Your task to perform on an android device: check google app version Image 0: 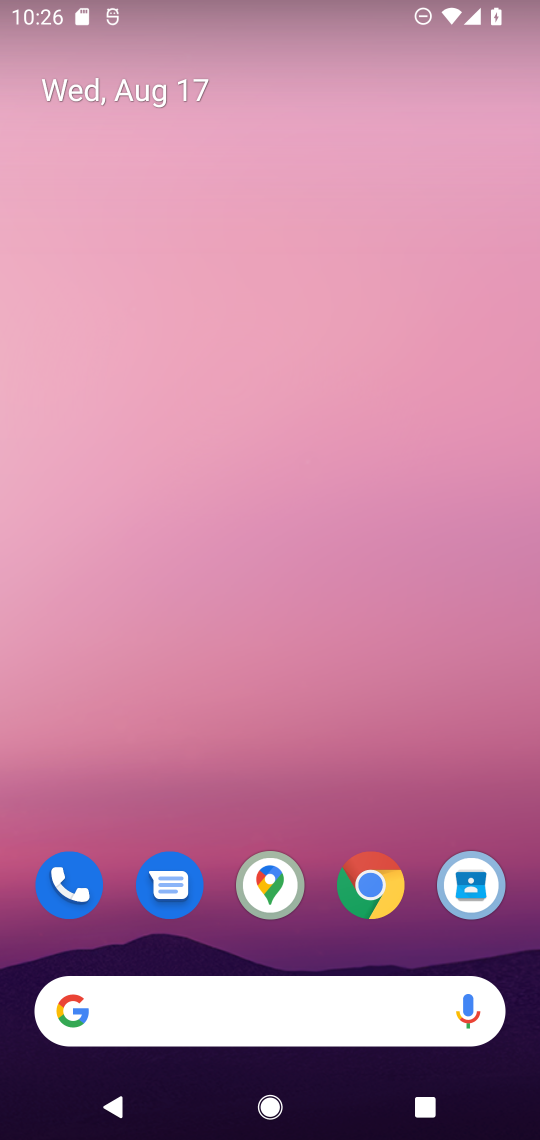
Step 0: click (369, 886)
Your task to perform on an android device: check google app version Image 1: 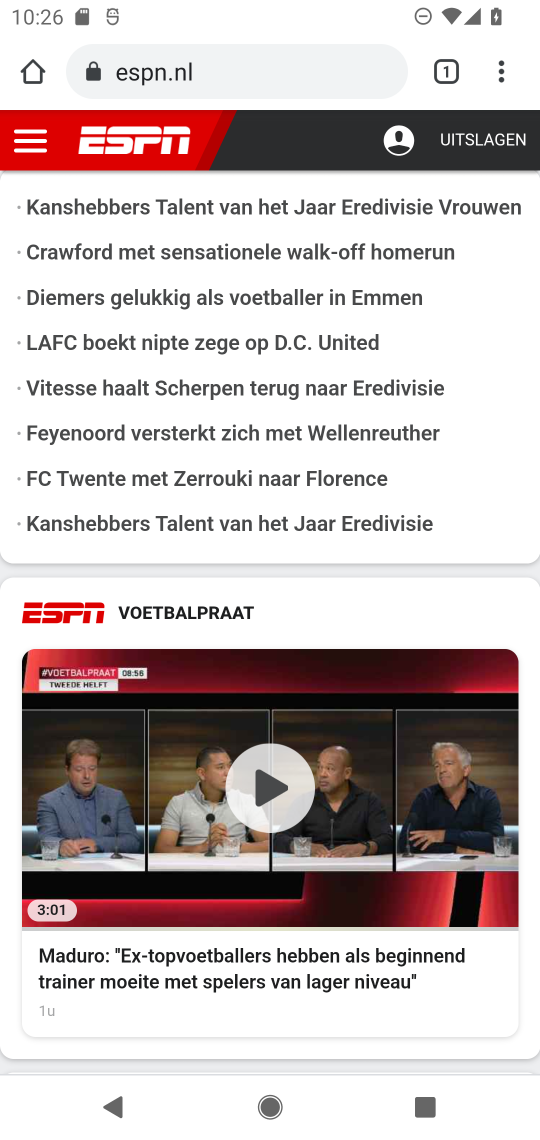
Step 1: click (491, 79)
Your task to perform on an android device: check google app version Image 2: 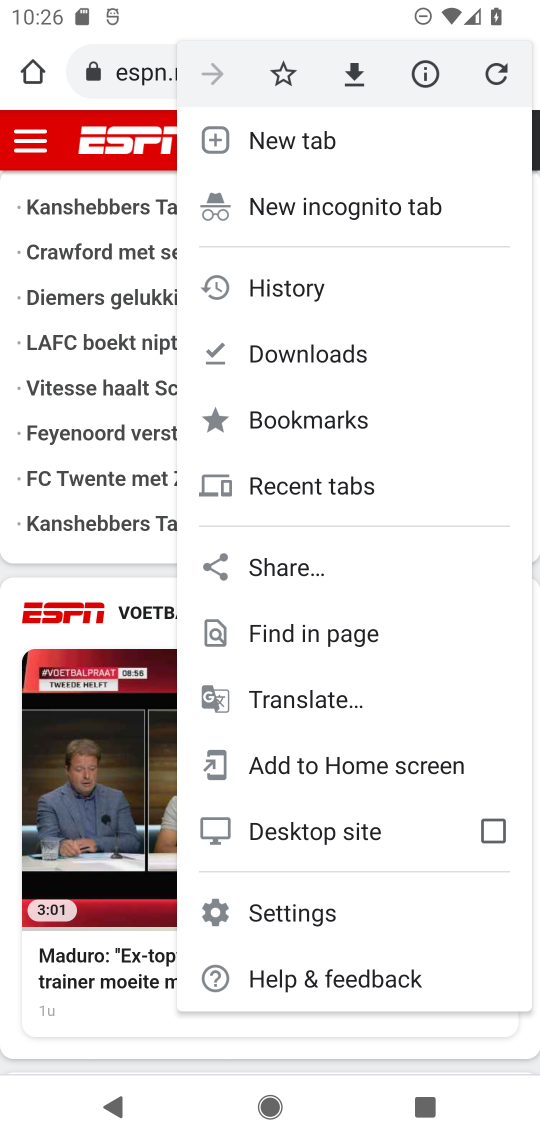
Step 2: click (294, 912)
Your task to perform on an android device: check google app version Image 3: 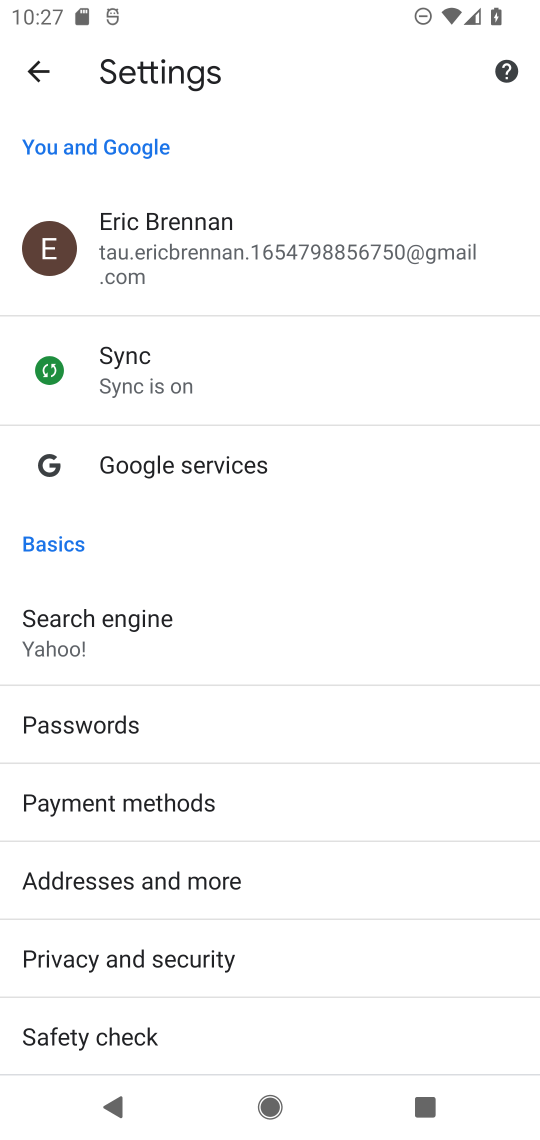
Step 3: drag from (308, 1005) to (341, 389)
Your task to perform on an android device: check google app version Image 4: 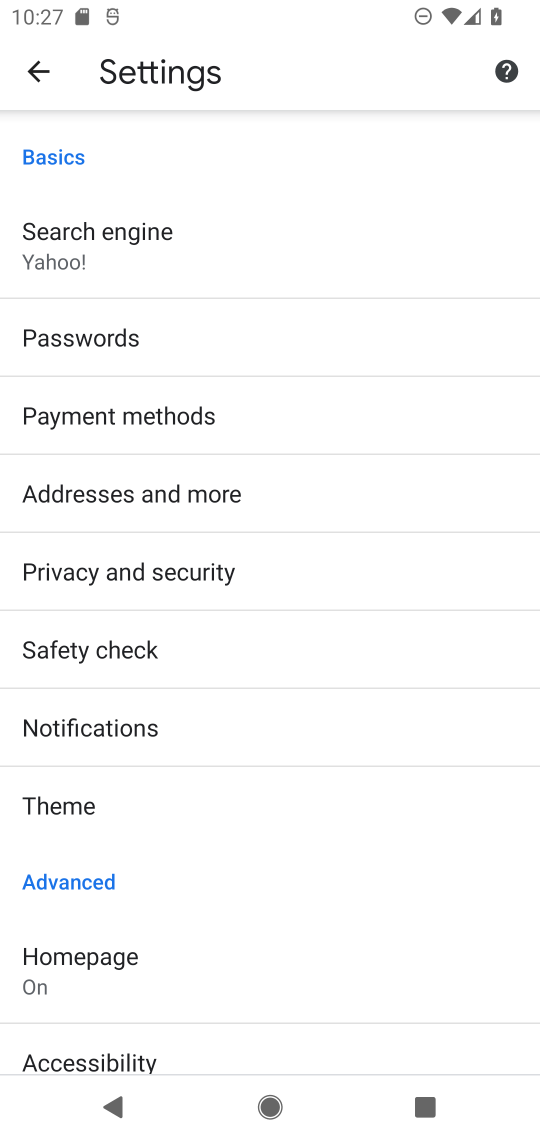
Step 4: drag from (293, 1003) to (288, 350)
Your task to perform on an android device: check google app version Image 5: 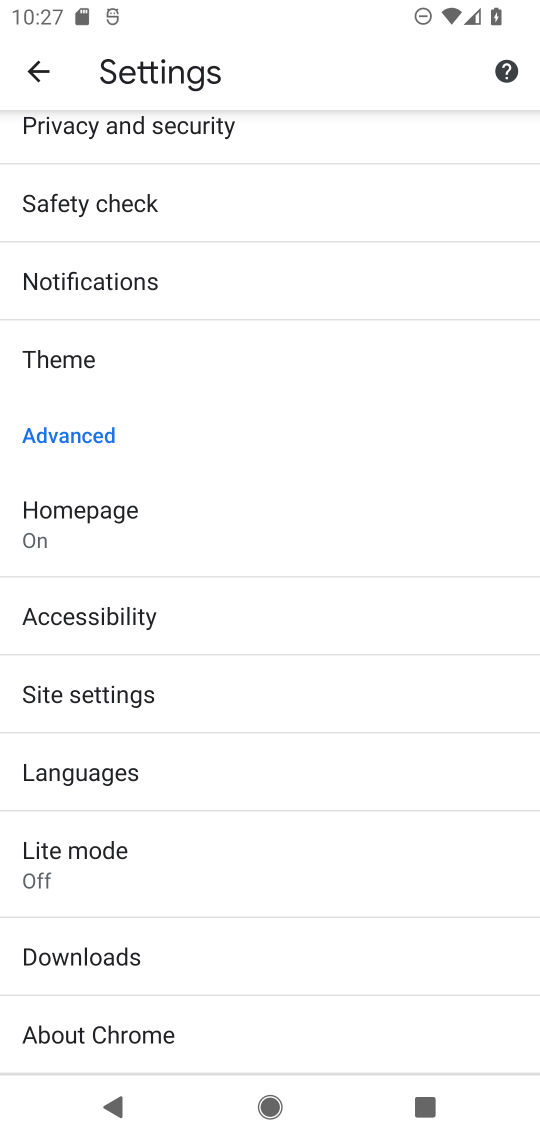
Step 5: click (124, 1046)
Your task to perform on an android device: check google app version Image 6: 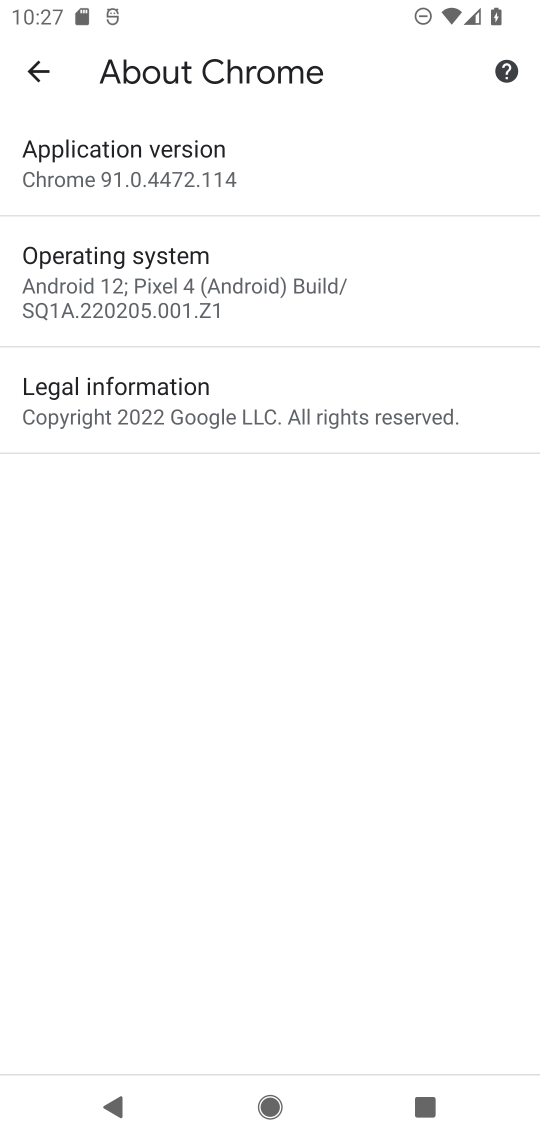
Step 6: click (154, 150)
Your task to perform on an android device: check google app version Image 7: 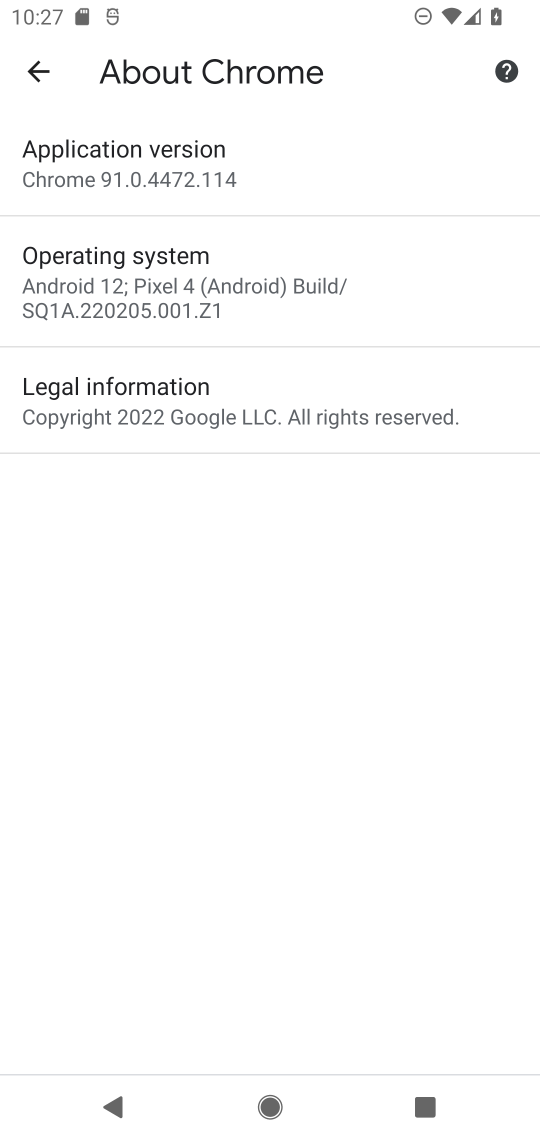
Step 7: task complete